Your task to perform on an android device: Show me productivity apps on the Play Store Image 0: 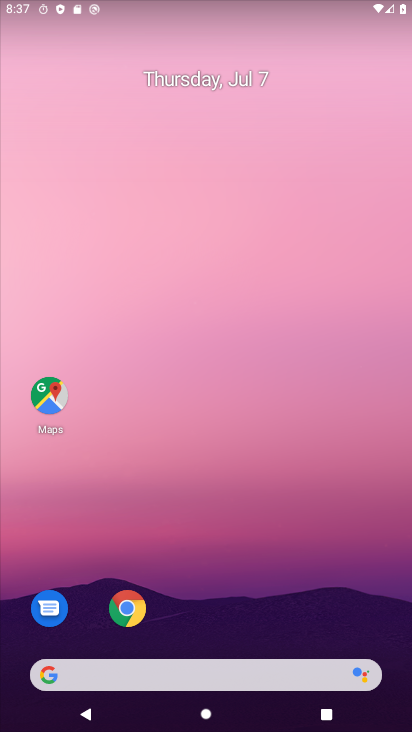
Step 0: drag from (260, 627) to (180, 114)
Your task to perform on an android device: Show me productivity apps on the Play Store Image 1: 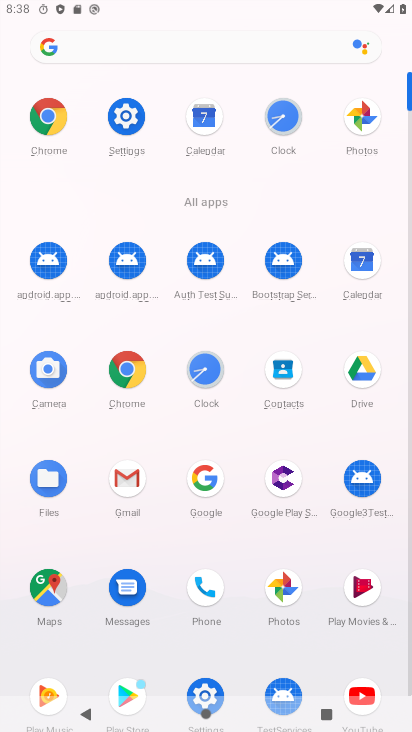
Step 1: drag from (270, 616) to (207, 331)
Your task to perform on an android device: Show me productivity apps on the Play Store Image 2: 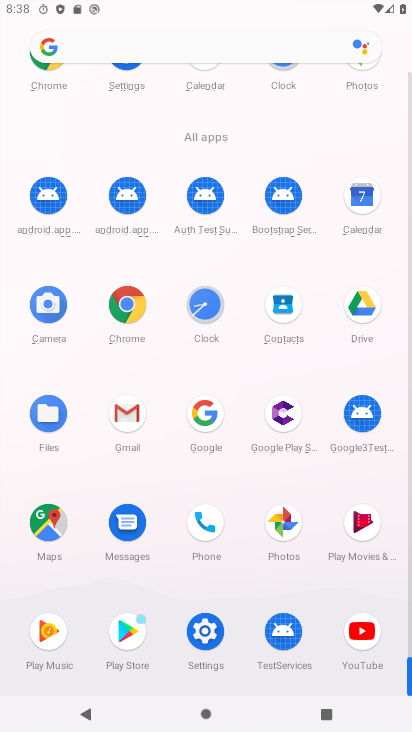
Step 2: click (133, 636)
Your task to perform on an android device: Show me productivity apps on the Play Store Image 3: 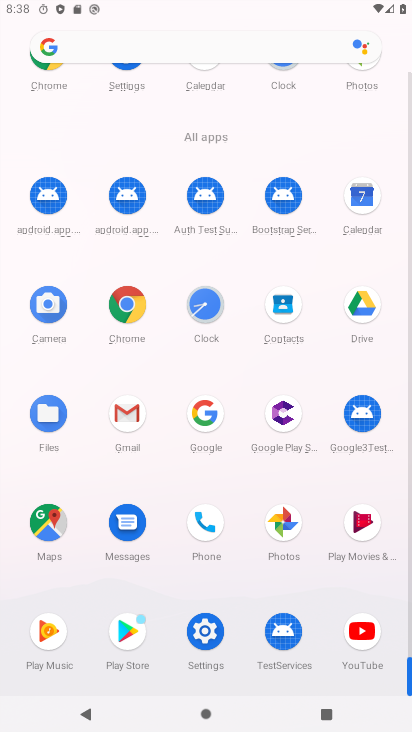
Step 3: click (133, 636)
Your task to perform on an android device: Show me productivity apps on the Play Store Image 4: 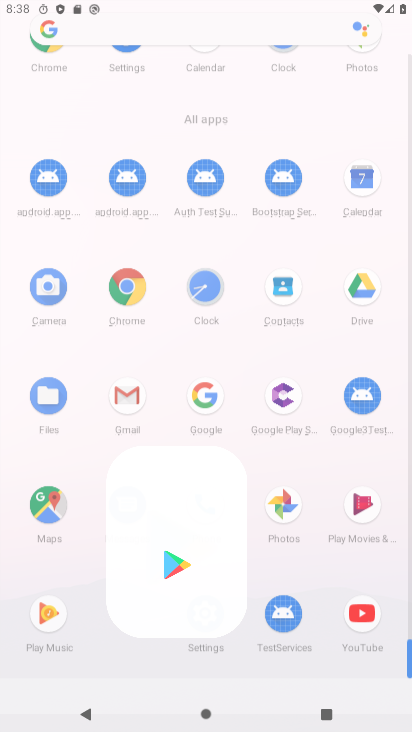
Step 4: click (135, 635)
Your task to perform on an android device: Show me productivity apps on the Play Store Image 5: 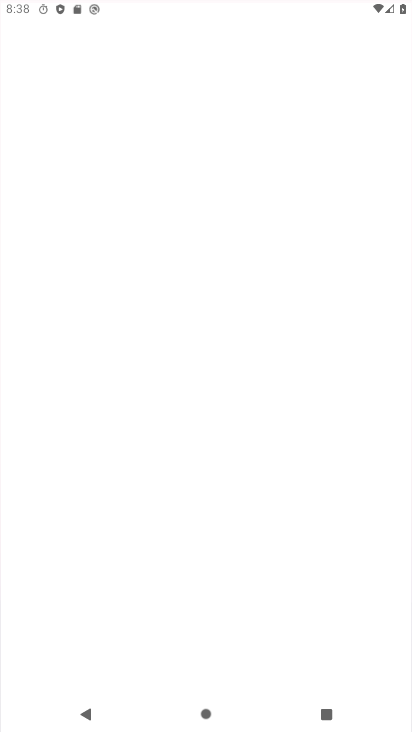
Step 5: click (132, 621)
Your task to perform on an android device: Show me productivity apps on the Play Store Image 6: 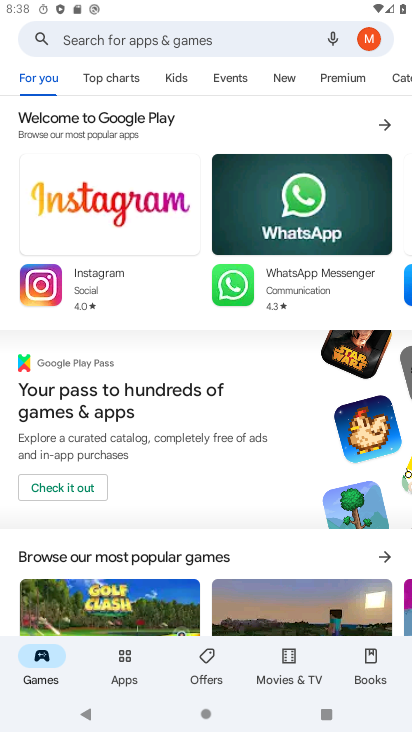
Step 6: click (215, 37)
Your task to perform on an android device: Show me productivity apps on the Play Store Image 7: 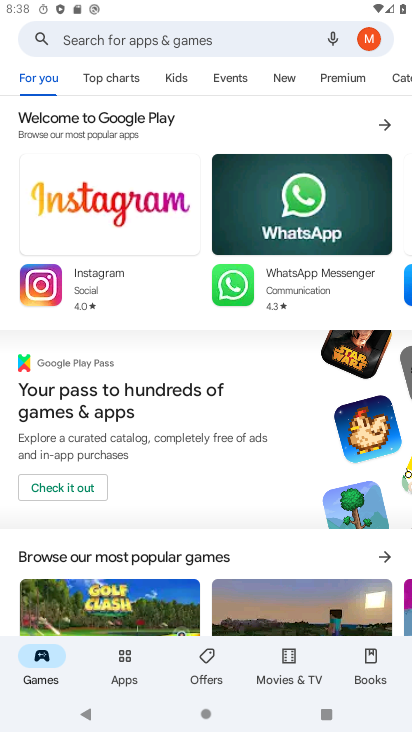
Step 7: click (215, 37)
Your task to perform on an android device: Show me productivity apps on the Play Store Image 8: 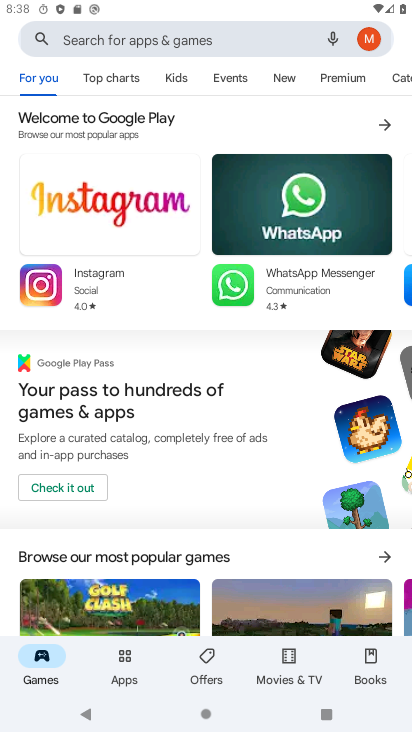
Step 8: click (215, 37)
Your task to perform on an android device: Show me productivity apps on the Play Store Image 9: 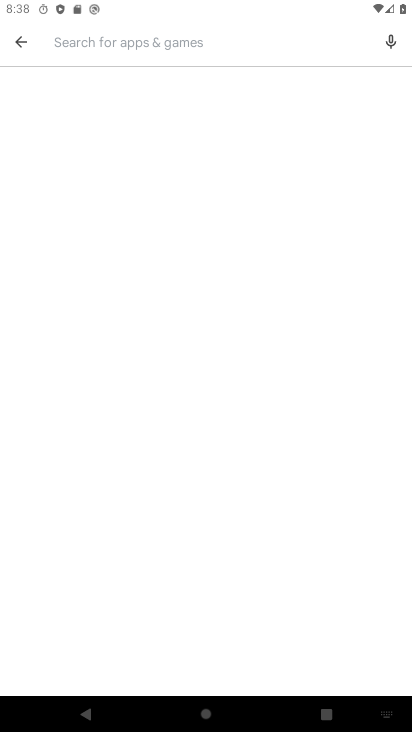
Step 9: type "productivity apps"
Your task to perform on an android device: Show me productivity apps on the Play Store Image 10: 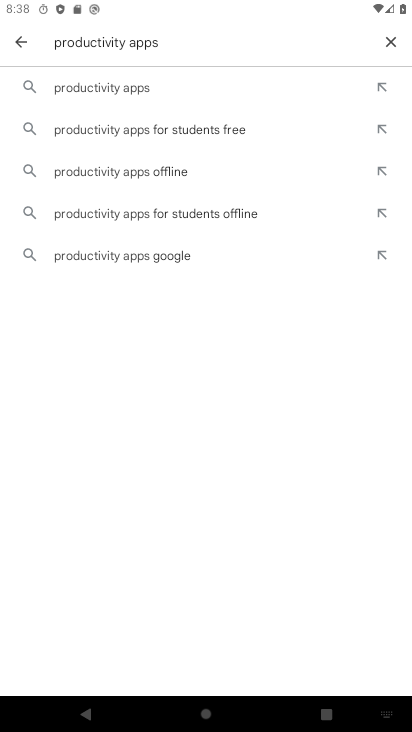
Step 10: click (107, 82)
Your task to perform on an android device: Show me productivity apps on the Play Store Image 11: 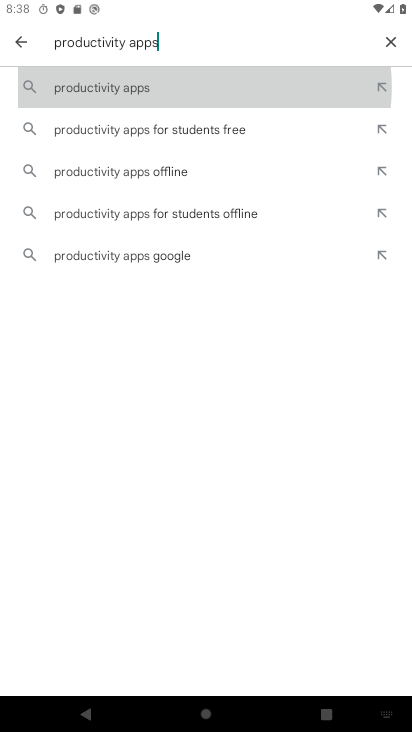
Step 11: click (107, 81)
Your task to perform on an android device: Show me productivity apps on the Play Store Image 12: 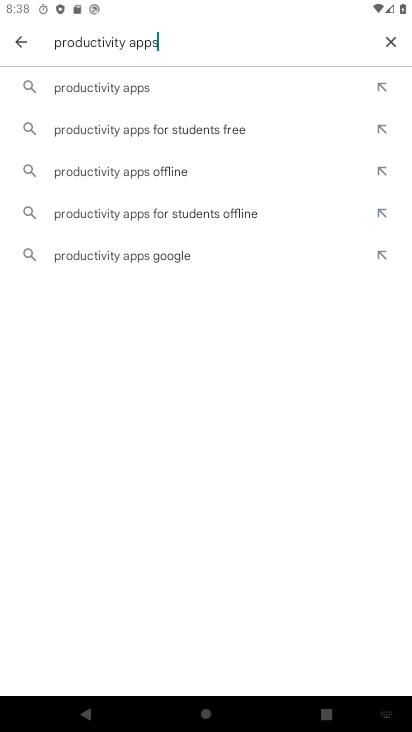
Step 12: click (107, 81)
Your task to perform on an android device: Show me productivity apps on the Play Store Image 13: 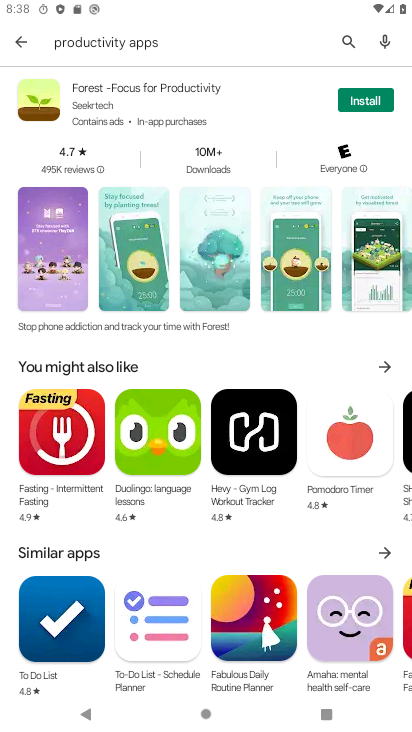
Step 13: task complete